Your task to perform on an android device: Add logitech g502 to the cart on amazon Image 0: 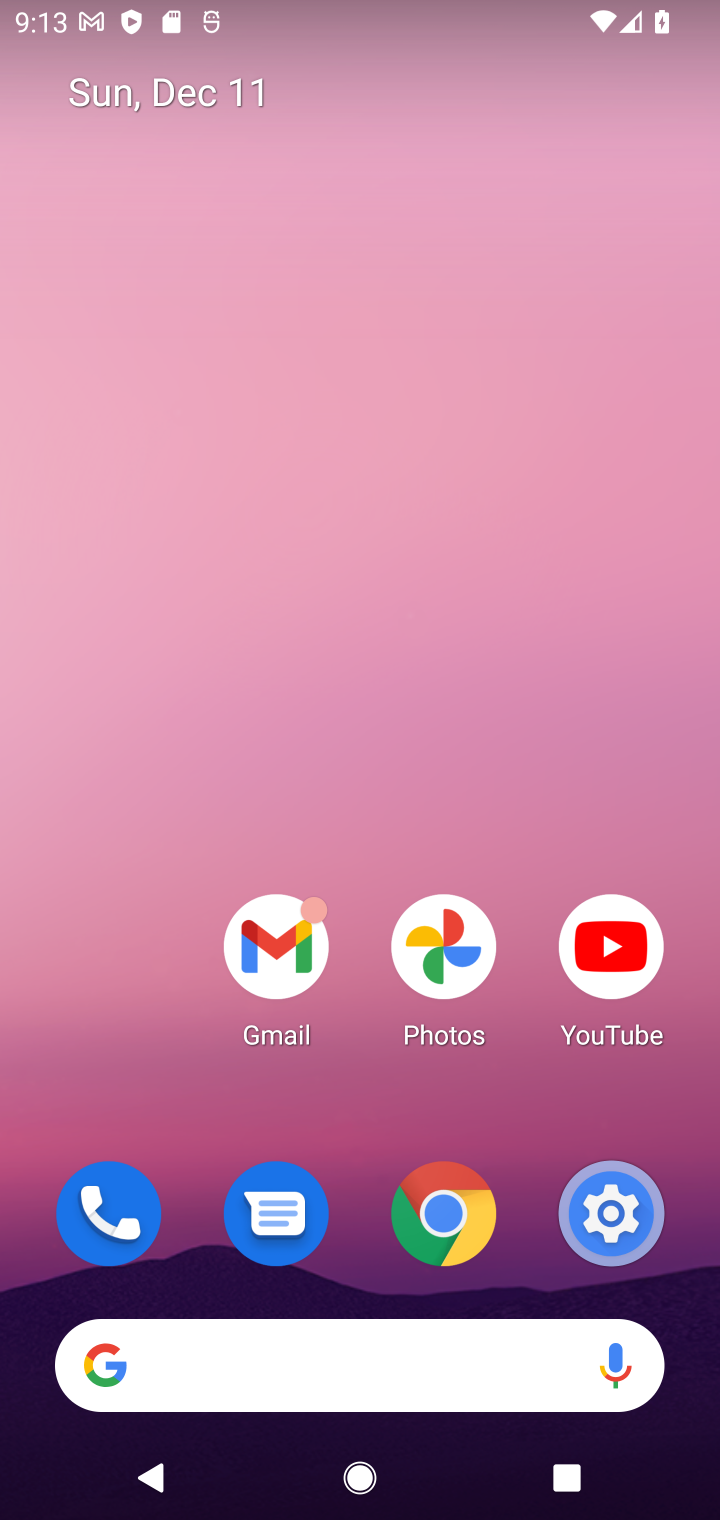
Step 0: click (414, 1356)
Your task to perform on an android device: Add logitech g502 to the cart on amazon Image 1: 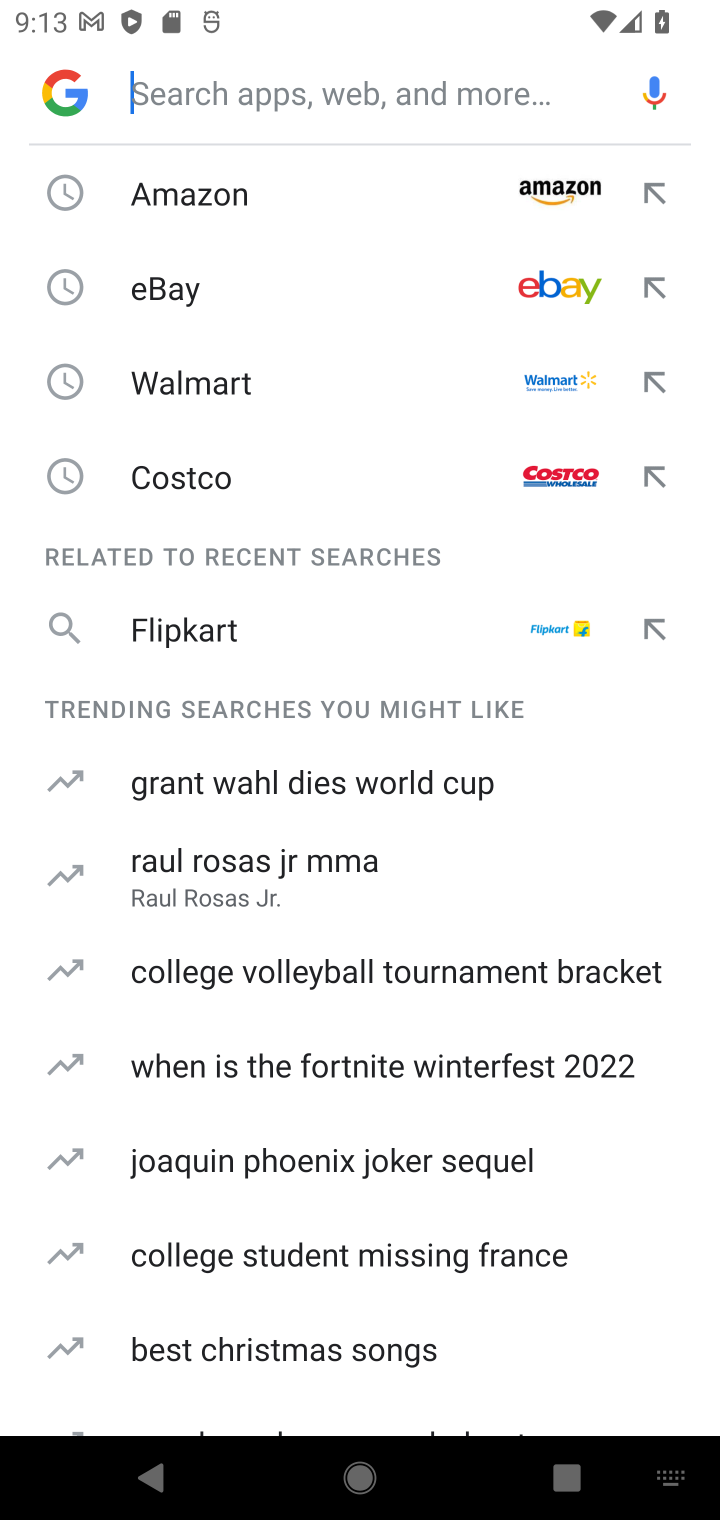
Step 1: click (312, 216)
Your task to perform on an android device: Add logitech g502 to the cart on amazon Image 2: 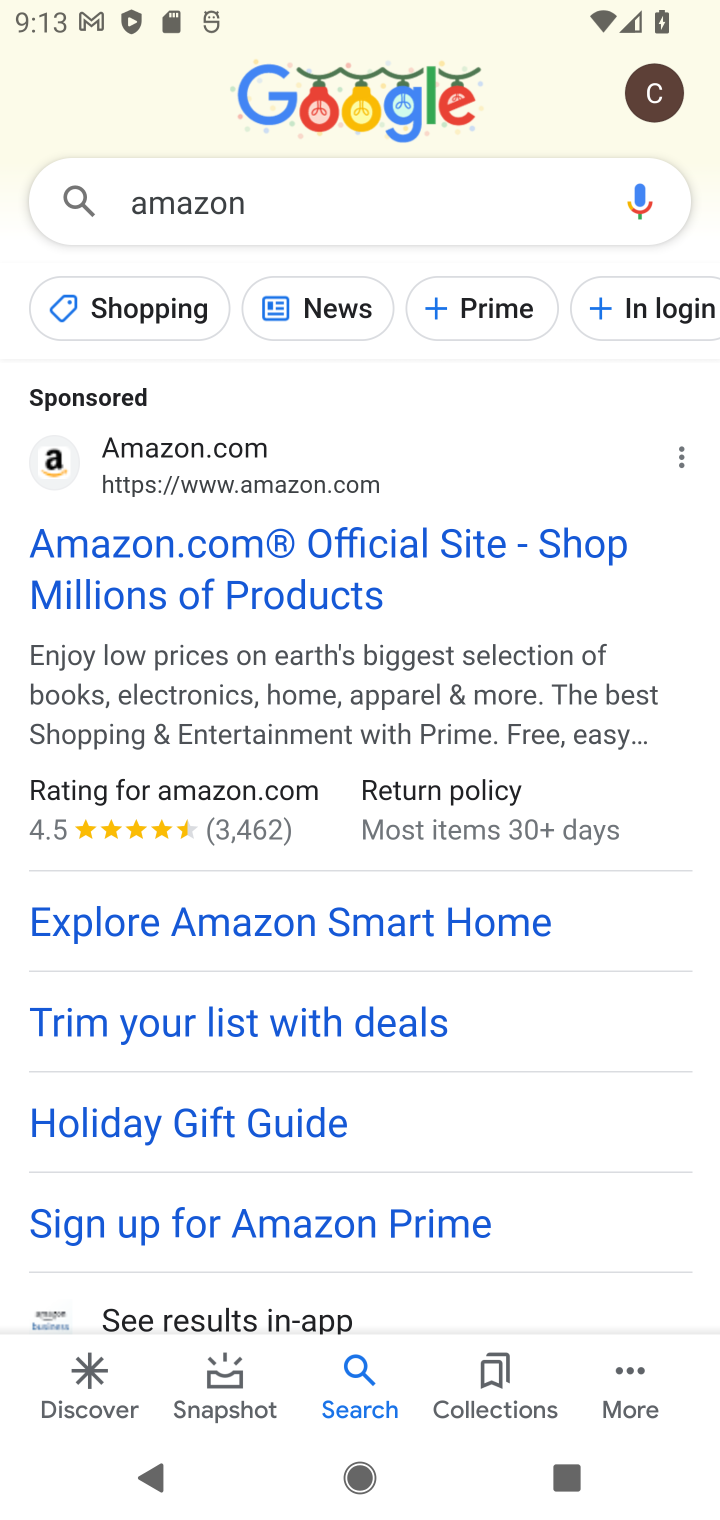
Step 2: click (192, 578)
Your task to perform on an android device: Add logitech g502 to the cart on amazon Image 3: 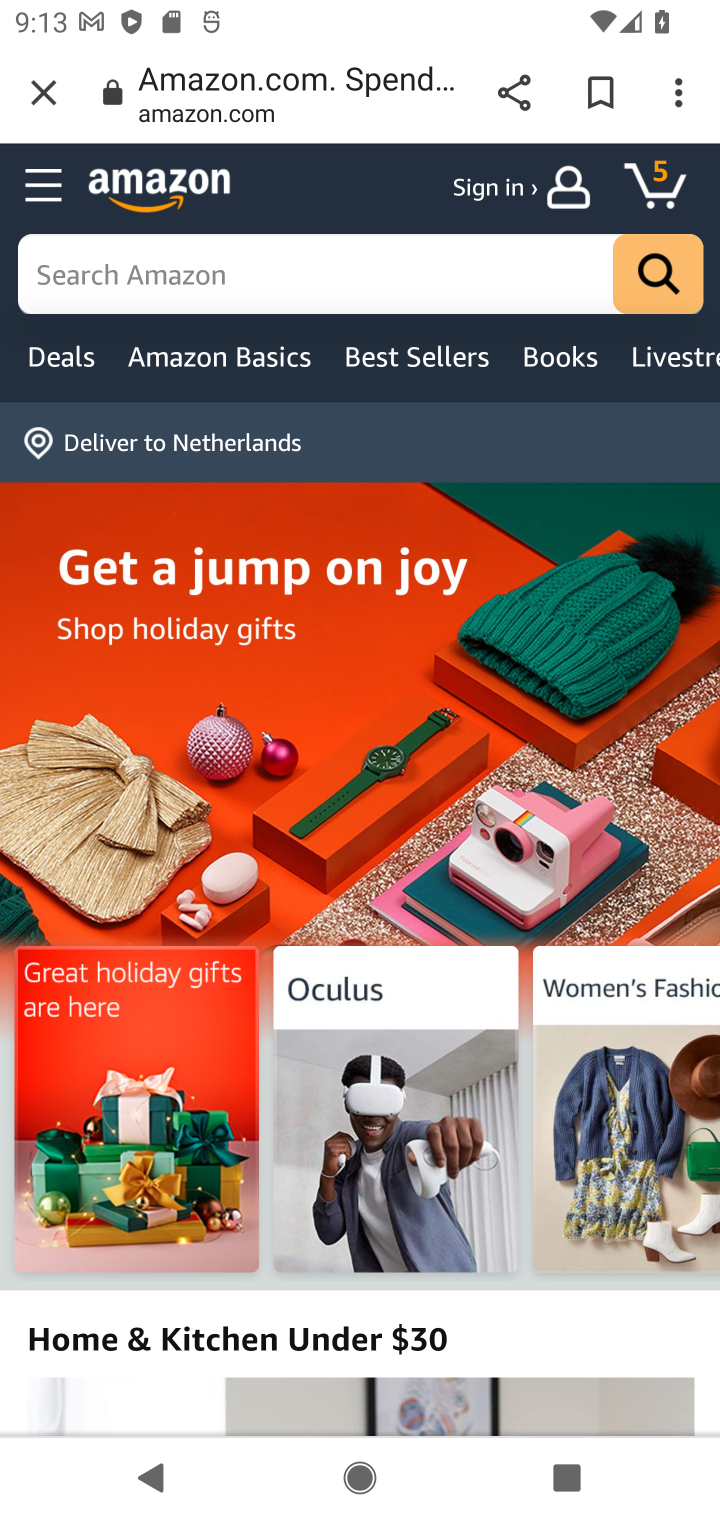
Step 3: click (243, 295)
Your task to perform on an android device: Add logitech g502 to the cart on amazon Image 4: 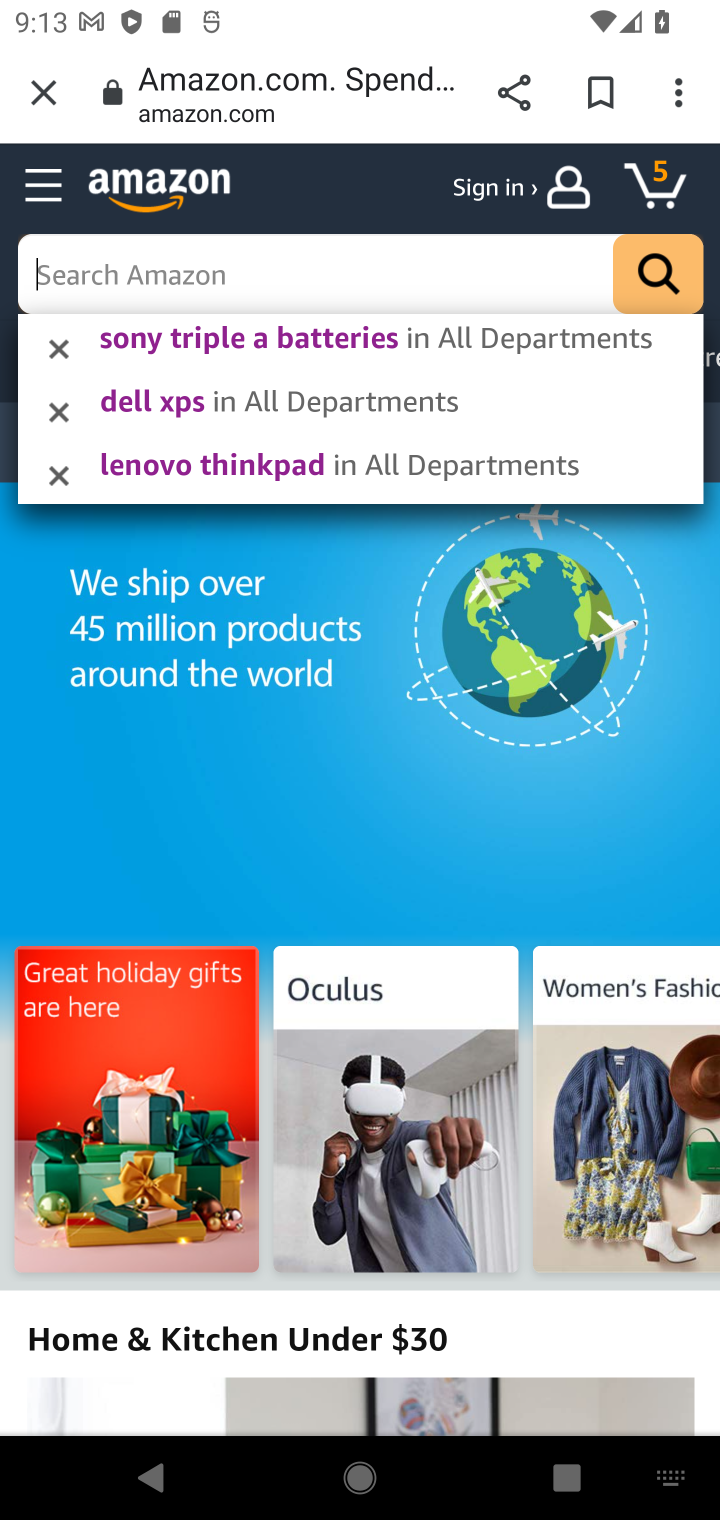
Step 4: type "logitech g502"
Your task to perform on an android device: Add logitech g502 to the cart on amazon Image 5: 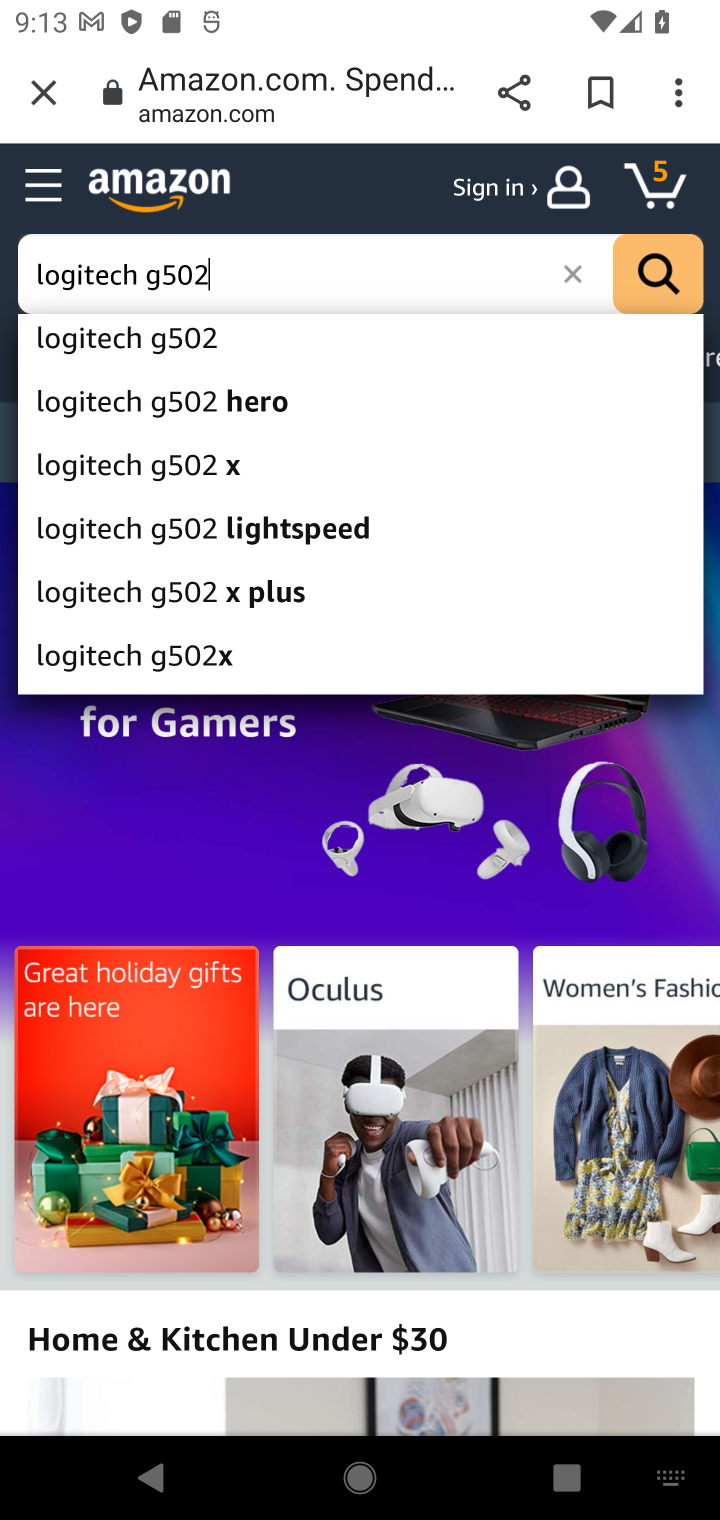
Step 5: click (660, 284)
Your task to perform on an android device: Add logitech g502 to the cart on amazon Image 6: 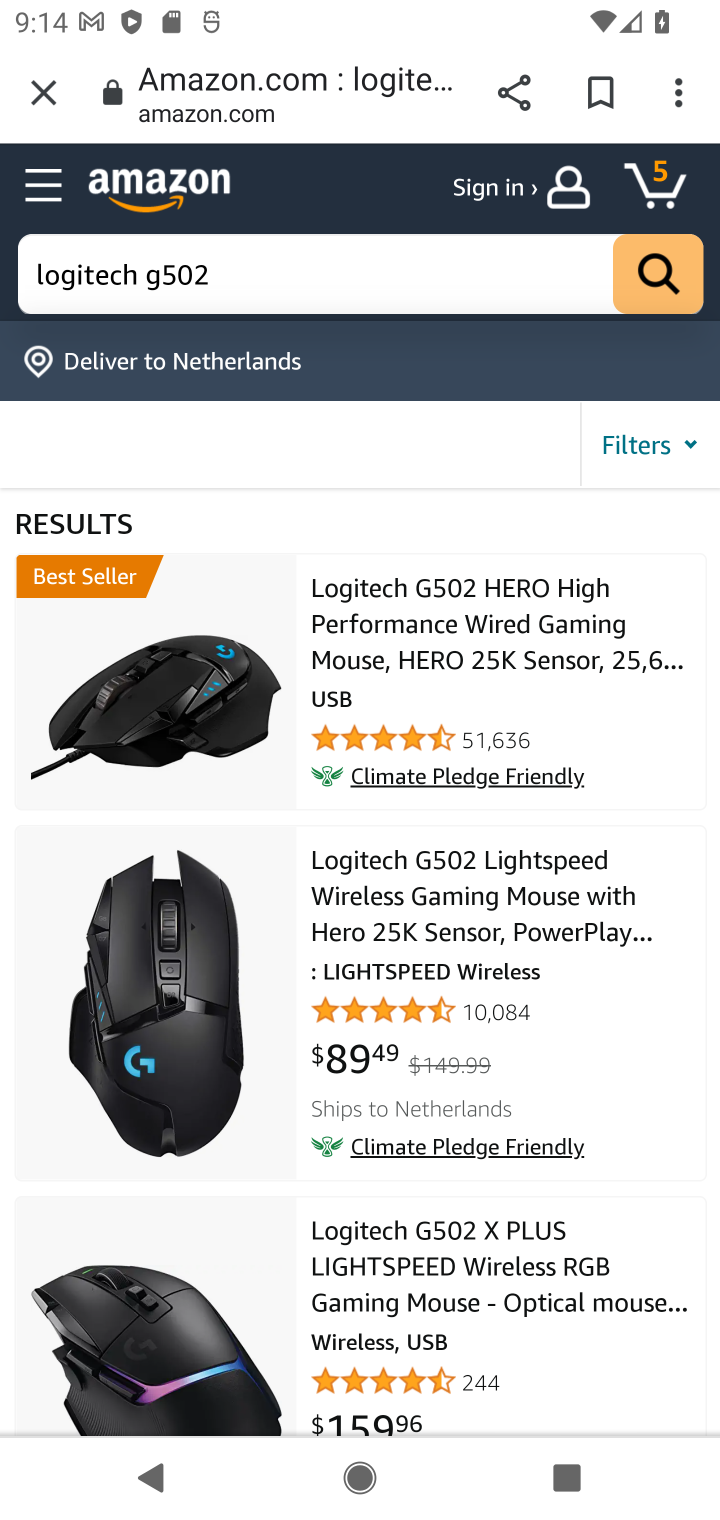
Step 6: click (403, 596)
Your task to perform on an android device: Add logitech g502 to the cart on amazon Image 7: 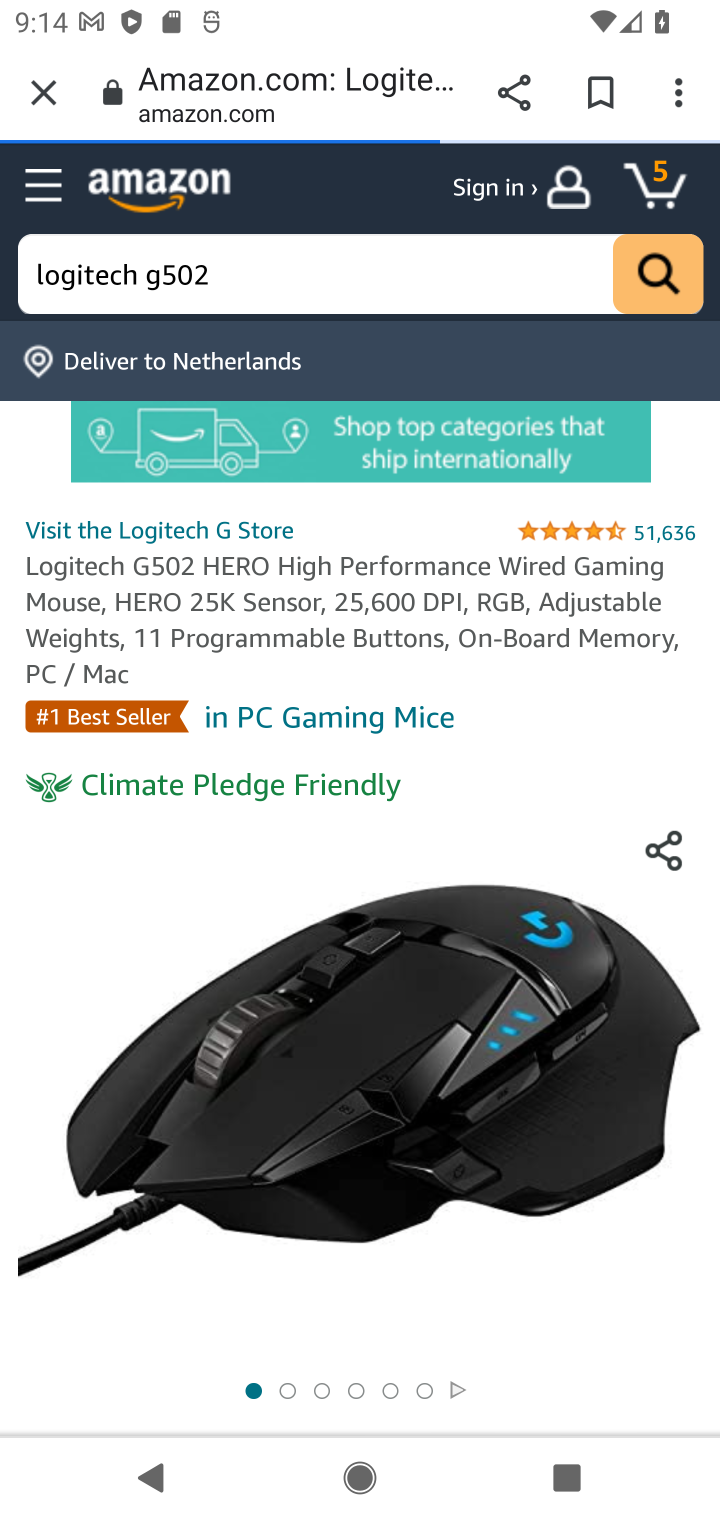
Step 7: drag from (456, 1097) to (442, 495)
Your task to perform on an android device: Add logitech g502 to the cart on amazon Image 8: 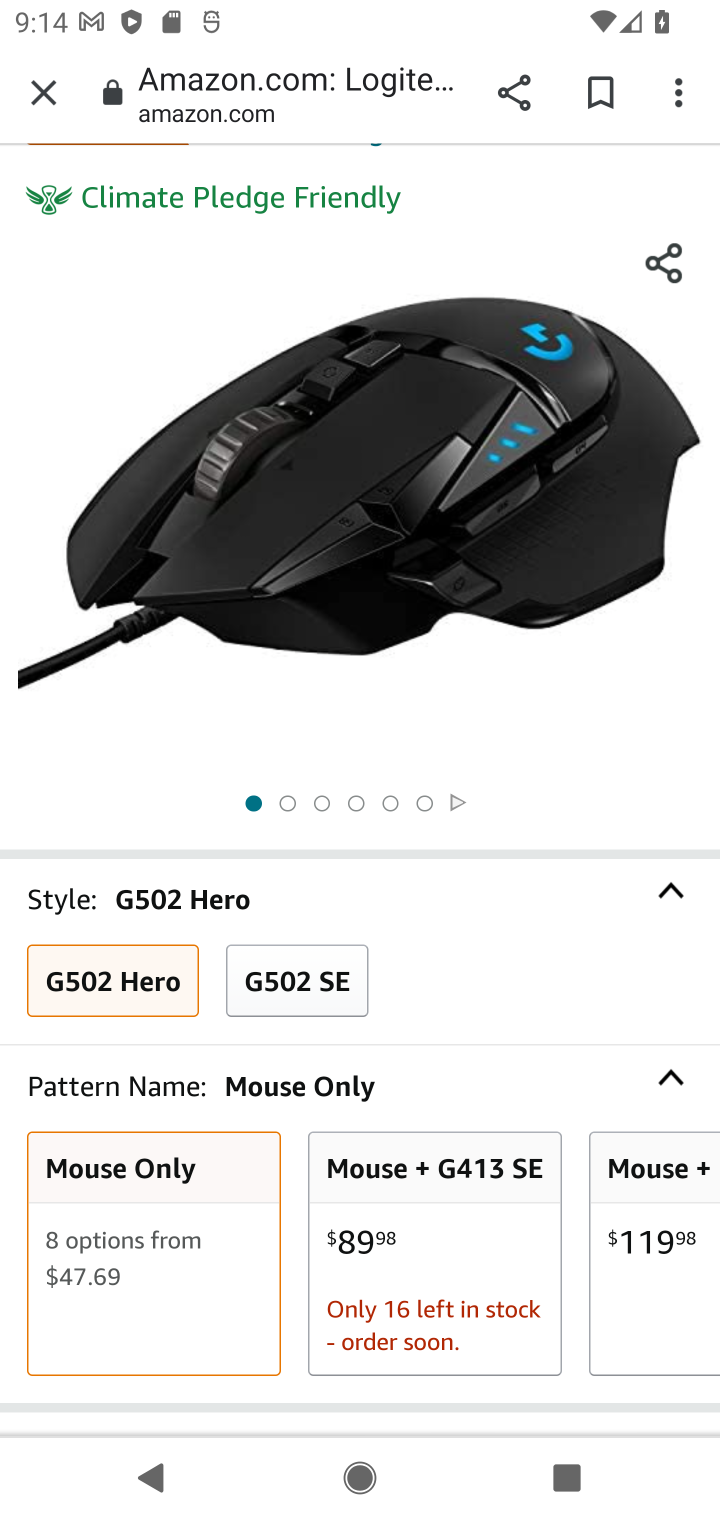
Step 8: drag from (460, 987) to (389, 386)
Your task to perform on an android device: Add logitech g502 to the cart on amazon Image 9: 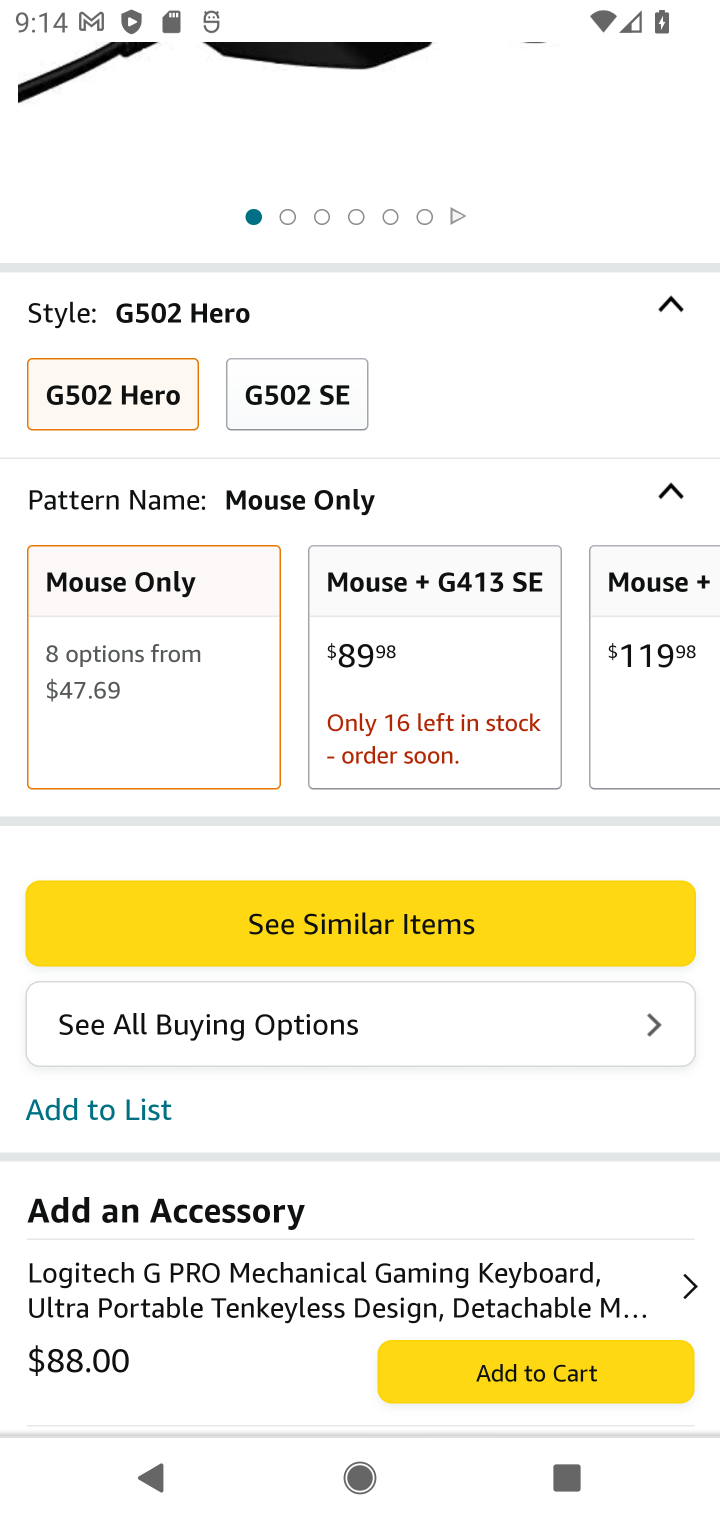
Step 9: click (534, 1342)
Your task to perform on an android device: Add logitech g502 to the cart on amazon Image 10: 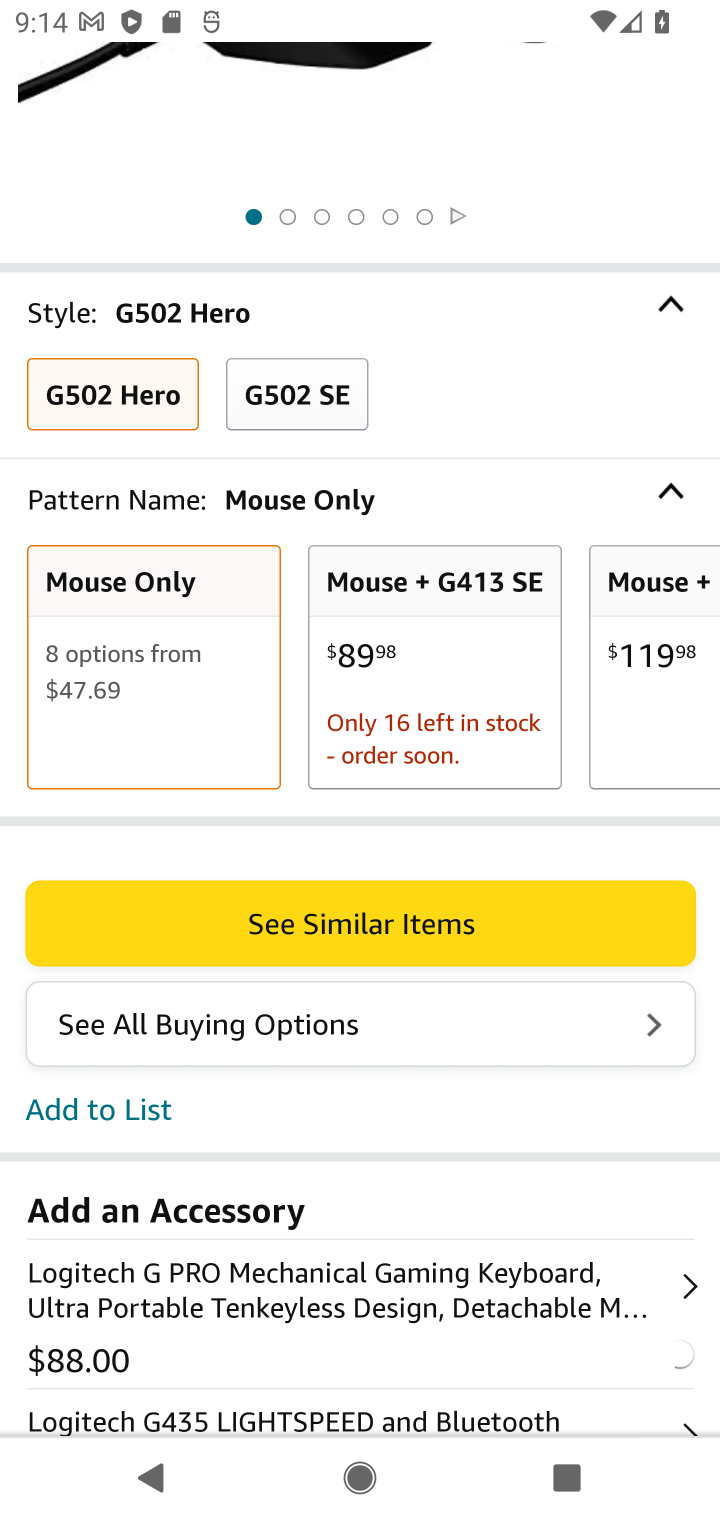
Step 10: task complete